Your task to perform on an android device: turn off location history Image 0: 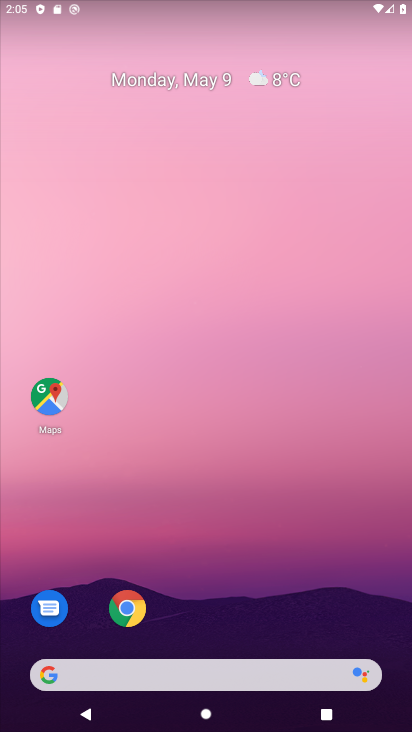
Step 0: drag from (189, 654) to (186, 239)
Your task to perform on an android device: turn off location history Image 1: 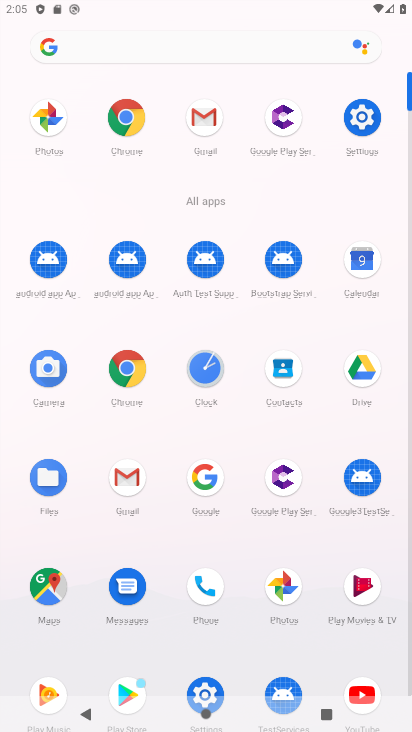
Step 1: click (363, 116)
Your task to perform on an android device: turn off location history Image 2: 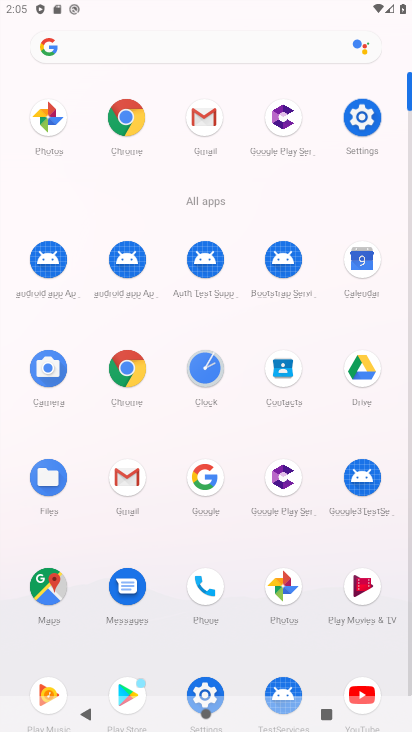
Step 2: click (363, 116)
Your task to perform on an android device: turn off location history Image 3: 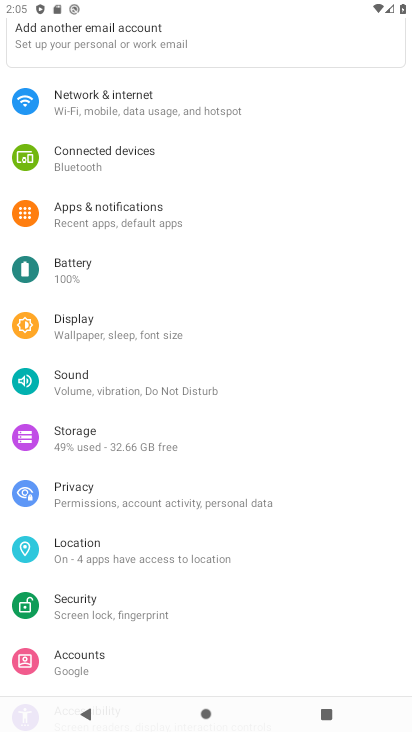
Step 3: click (165, 556)
Your task to perform on an android device: turn off location history Image 4: 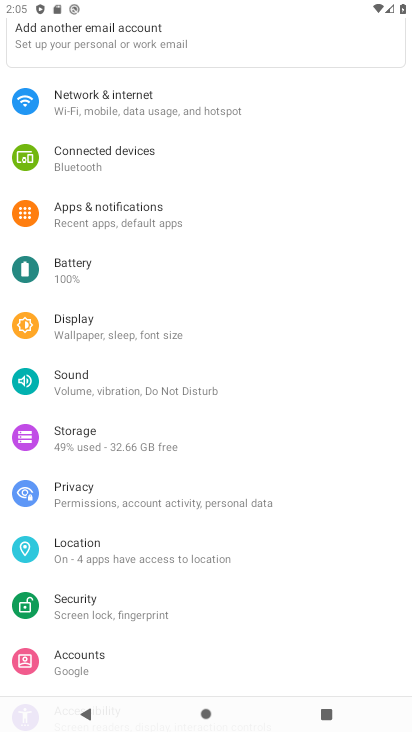
Step 4: click (165, 556)
Your task to perform on an android device: turn off location history Image 5: 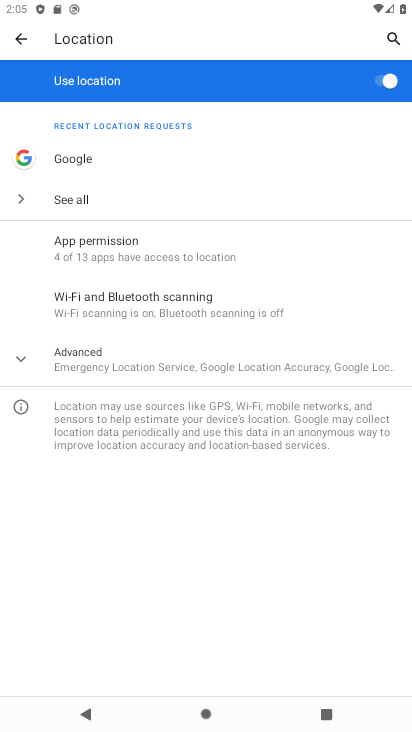
Step 5: click (201, 357)
Your task to perform on an android device: turn off location history Image 6: 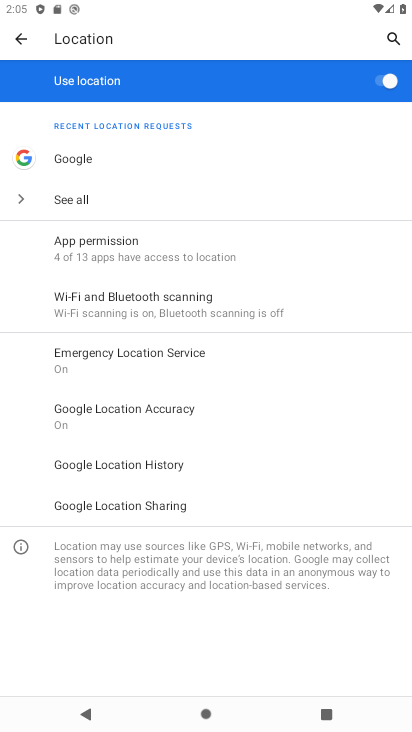
Step 6: click (193, 470)
Your task to perform on an android device: turn off location history Image 7: 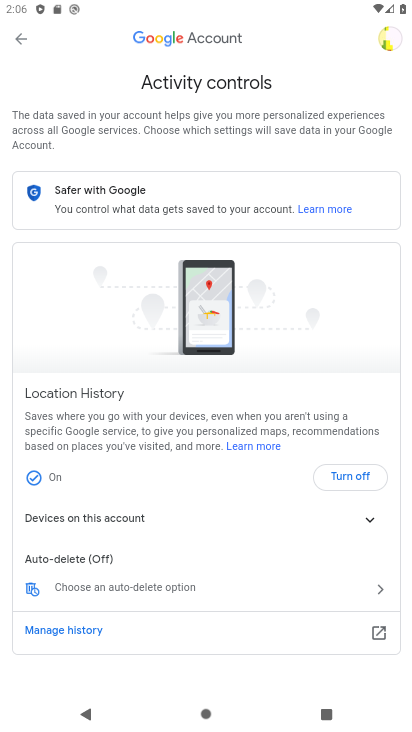
Step 7: click (376, 471)
Your task to perform on an android device: turn off location history Image 8: 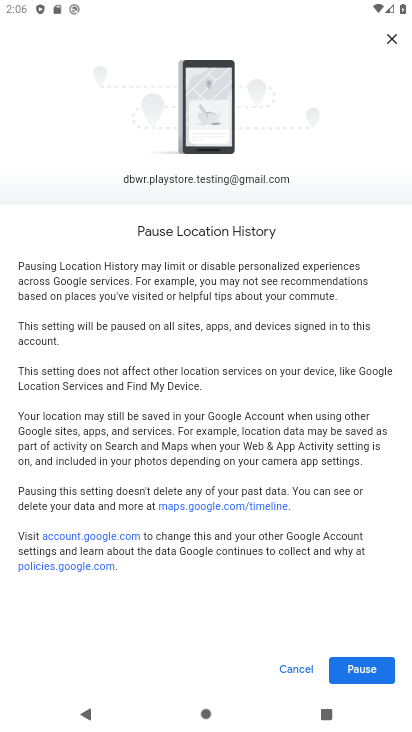
Step 8: click (383, 668)
Your task to perform on an android device: turn off location history Image 9: 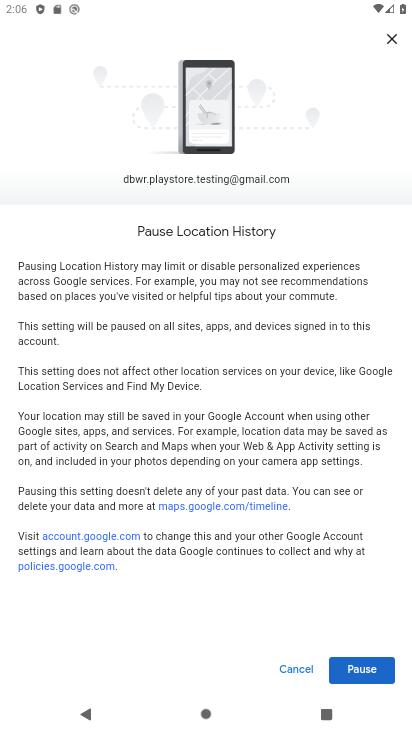
Step 9: click (377, 666)
Your task to perform on an android device: turn off location history Image 10: 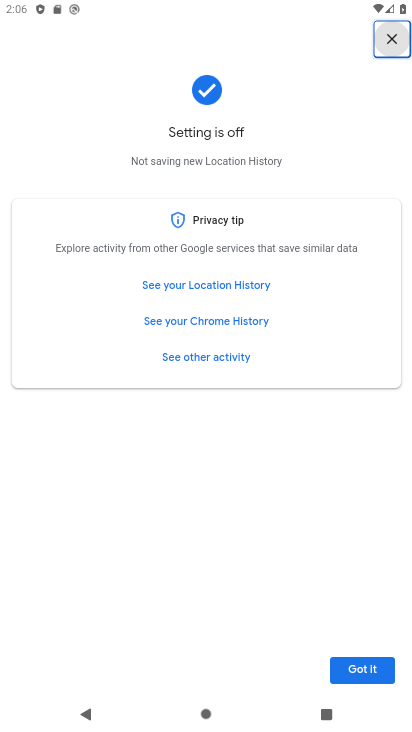
Step 10: click (377, 666)
Your task to perform on an android device: turn off location history Image 11: 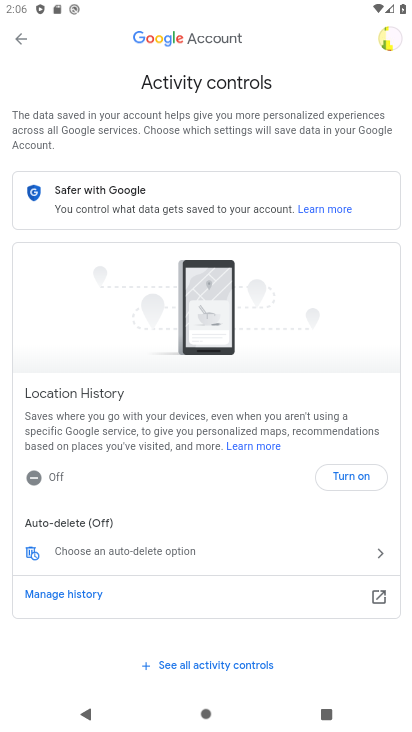
Step 11: task complete